Your task to perform on an android device: Open calendar and show me the second week of next month Image 0: 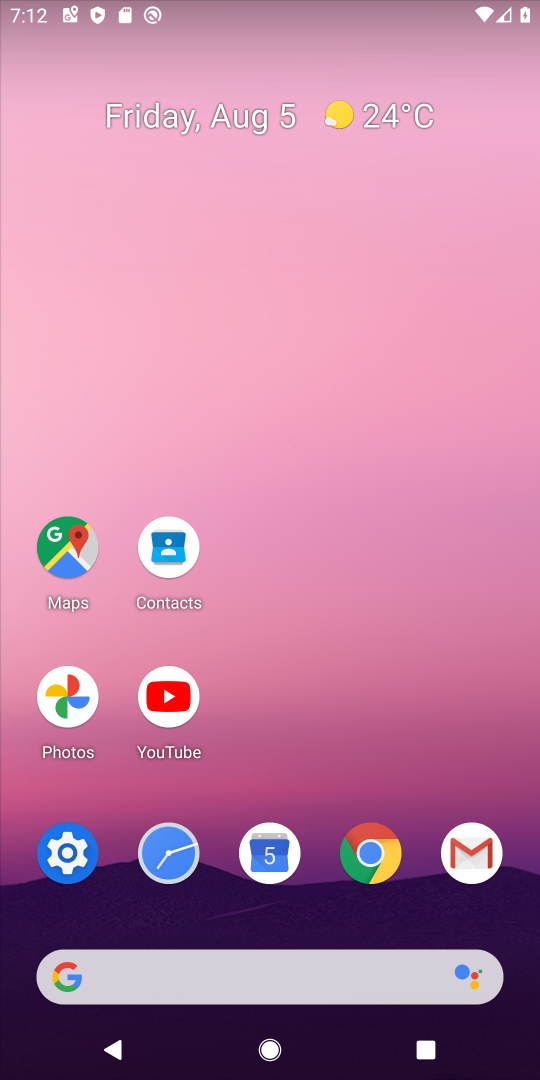
Step 0: click (280, 861)
Your task to perform on an android device: Open calendar and show me the second week of next month Image 1: 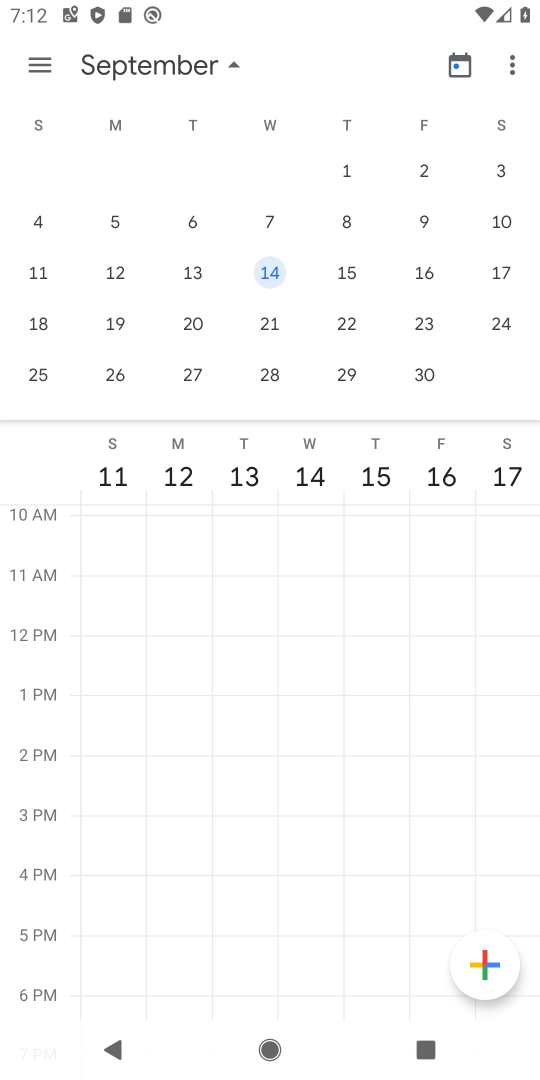
Step 1: click (263, 226)
Your task to perform on an android device: Open calendar and show me the second week of next month Image 2: 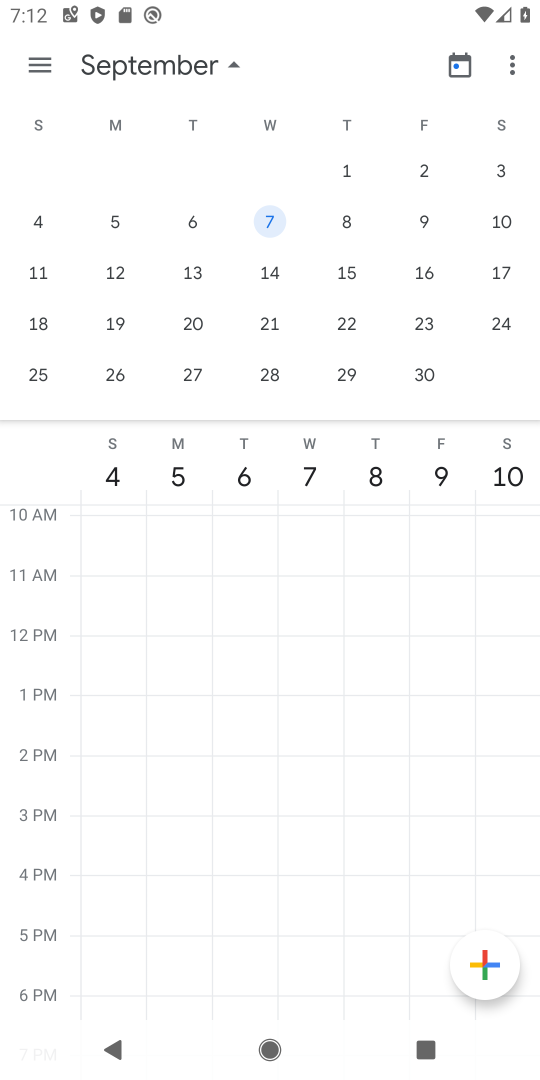
Step 2: task complete